Your task to perform on an android device: open app "Roku - Official Remote Control" (install if not already installed) Image 0: 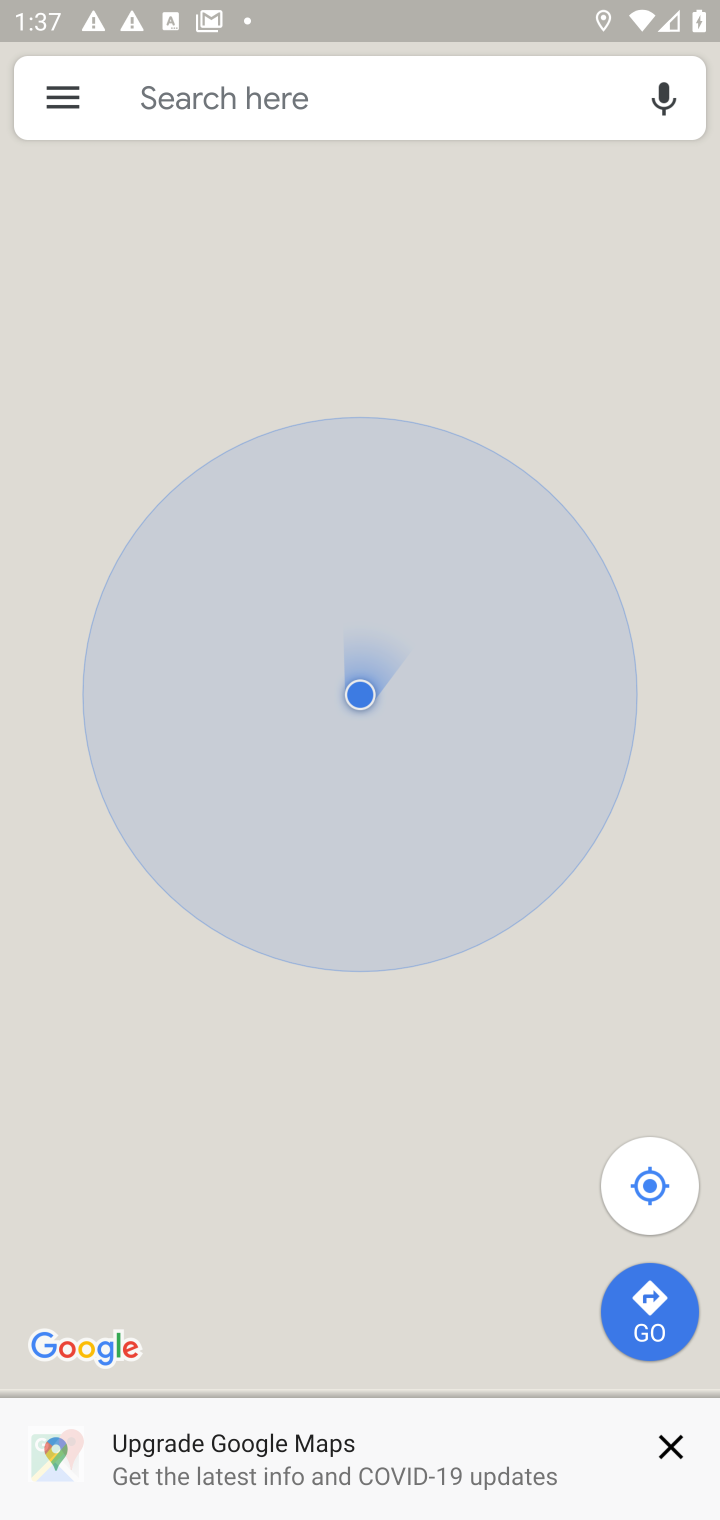
Step 0: press home button
Your task to perform on an android device: open app "Roku - Official Remote Control" (install if not already installed) Image 1: 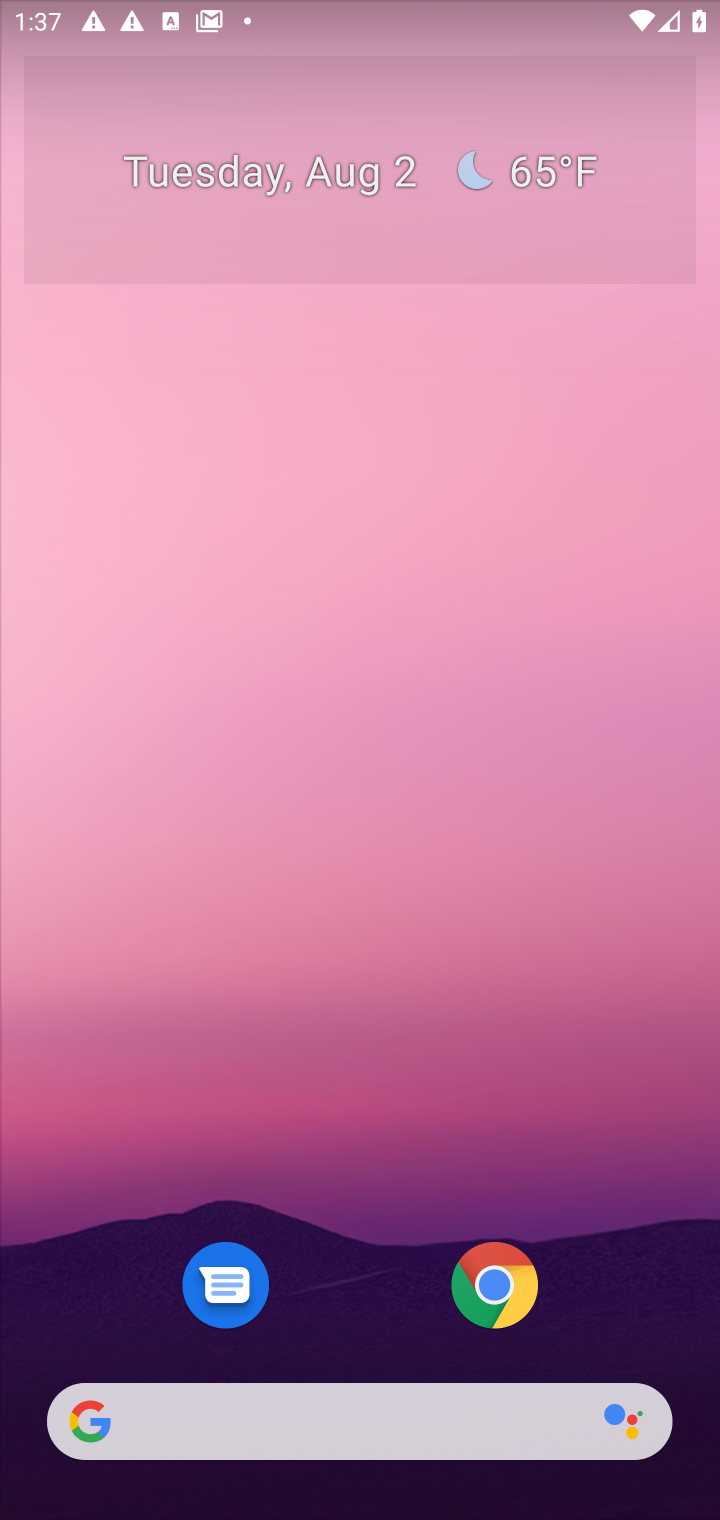
Step 1: drag from (550, 1114) to (643, 67)
Your task to perform on an android device: open app "Roku - Official Remote Control" (install if not already installed) Image 2: 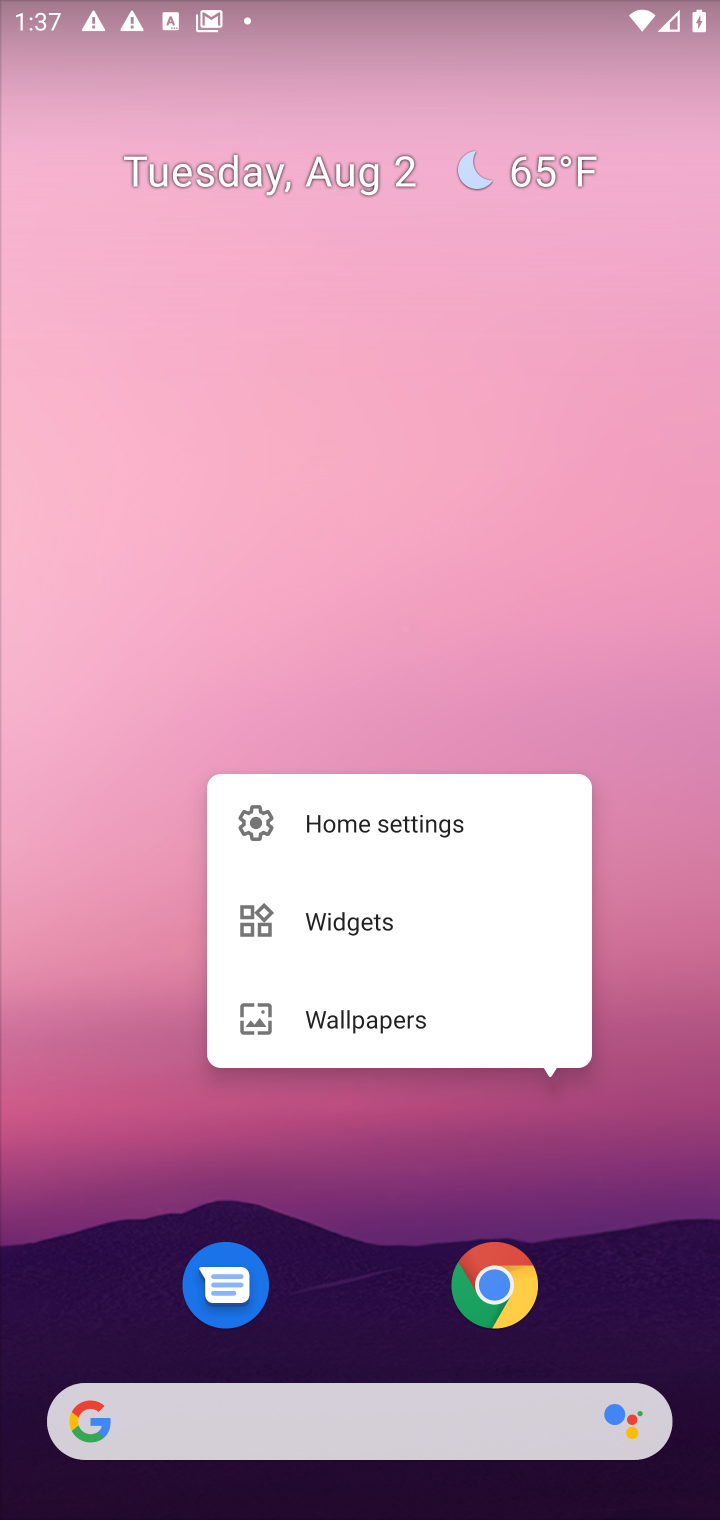
Step 2: click (565, 573)
Your task to perform on an android device: open app "Roku - Official Remote Control" (install if not already installed) Image 3: 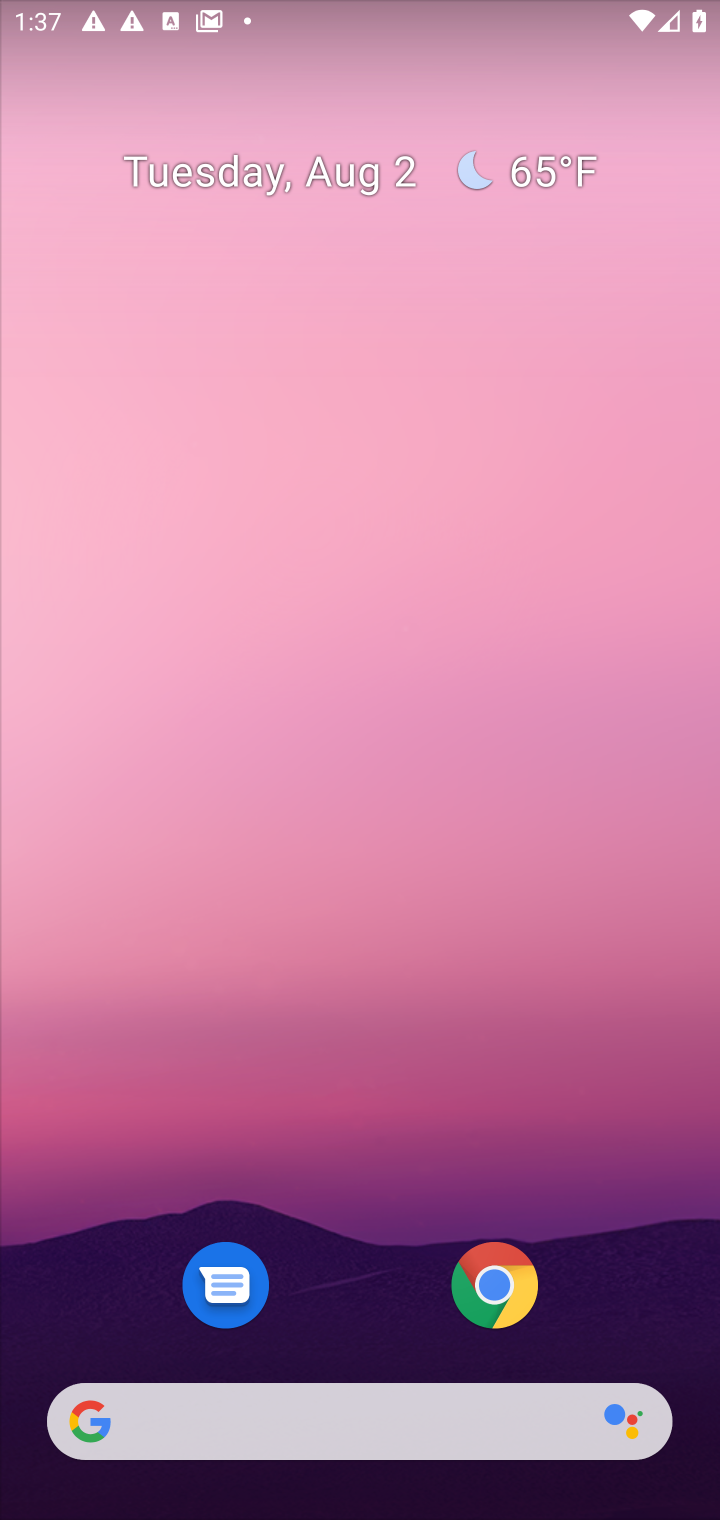
Step 3: drag from (648, 1222) to (665, 208)
Your task to perform on an android device: open app "Roku - Official Remote Control" (install if not already installed) Image 4: 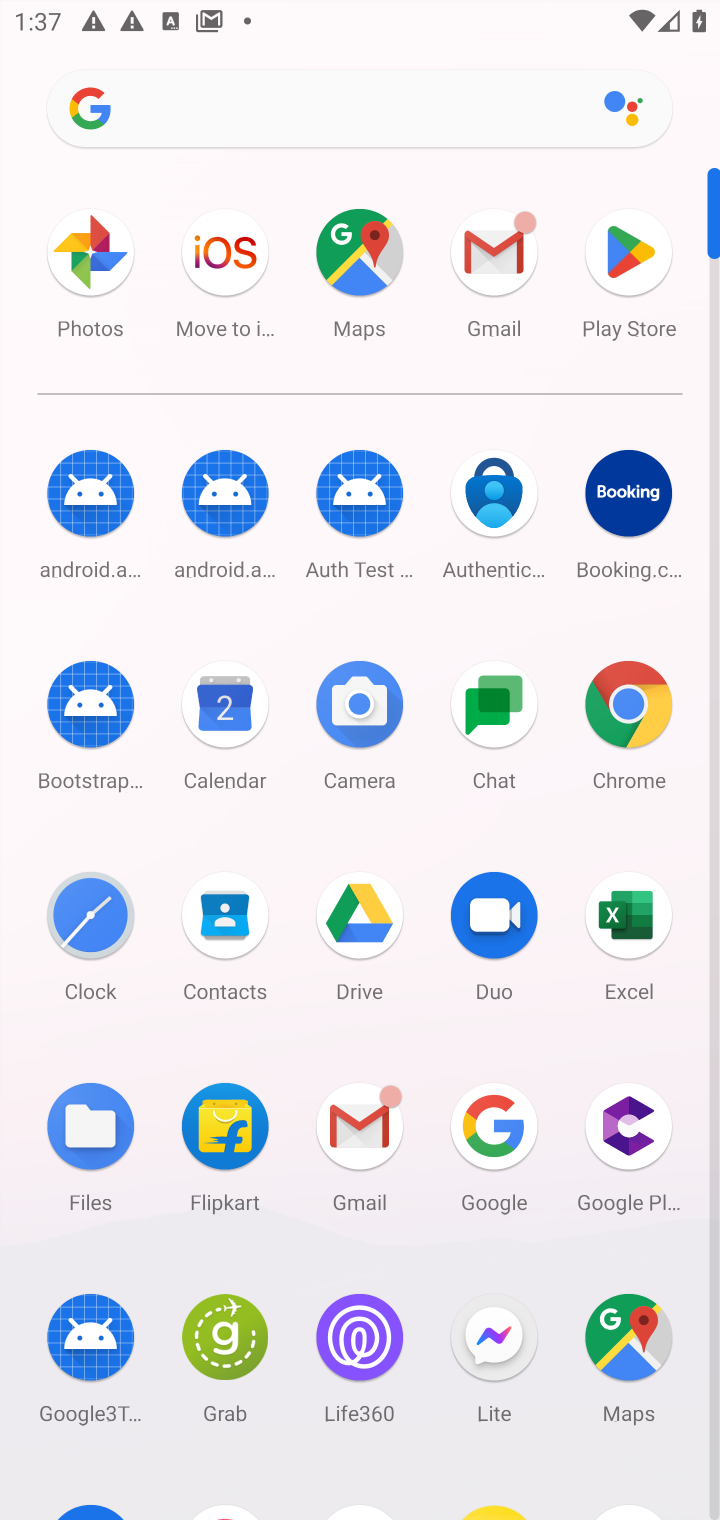
Step 4: drag from (536, 1196) to (580, 624)
Your task to perform on an android device: open app "Roku - Official Remote Control" (install if not already installed) Image 5: 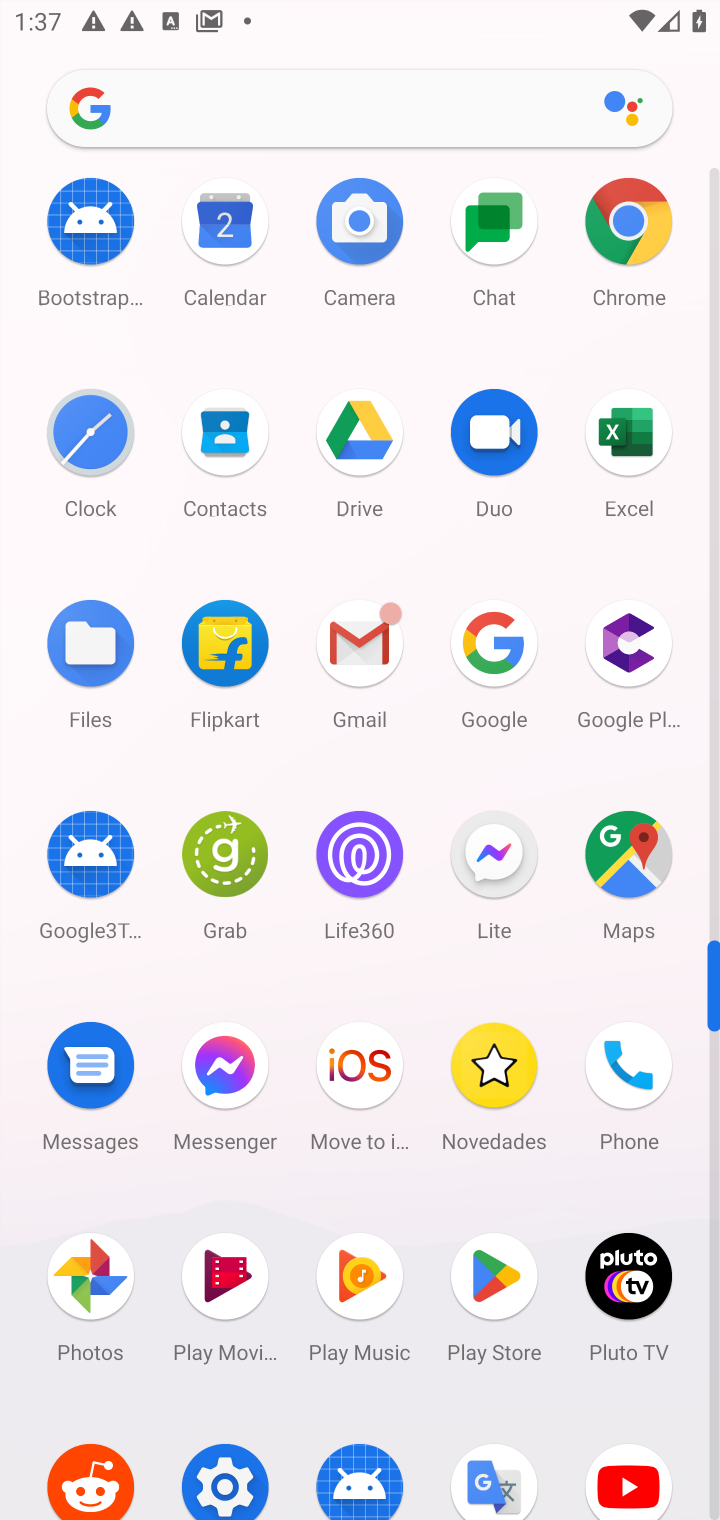
Step 5: click (510, 1272)
Your task to perform on an android device: open app "Roku - Official Remote Control" (install if not already installed) Image 6: 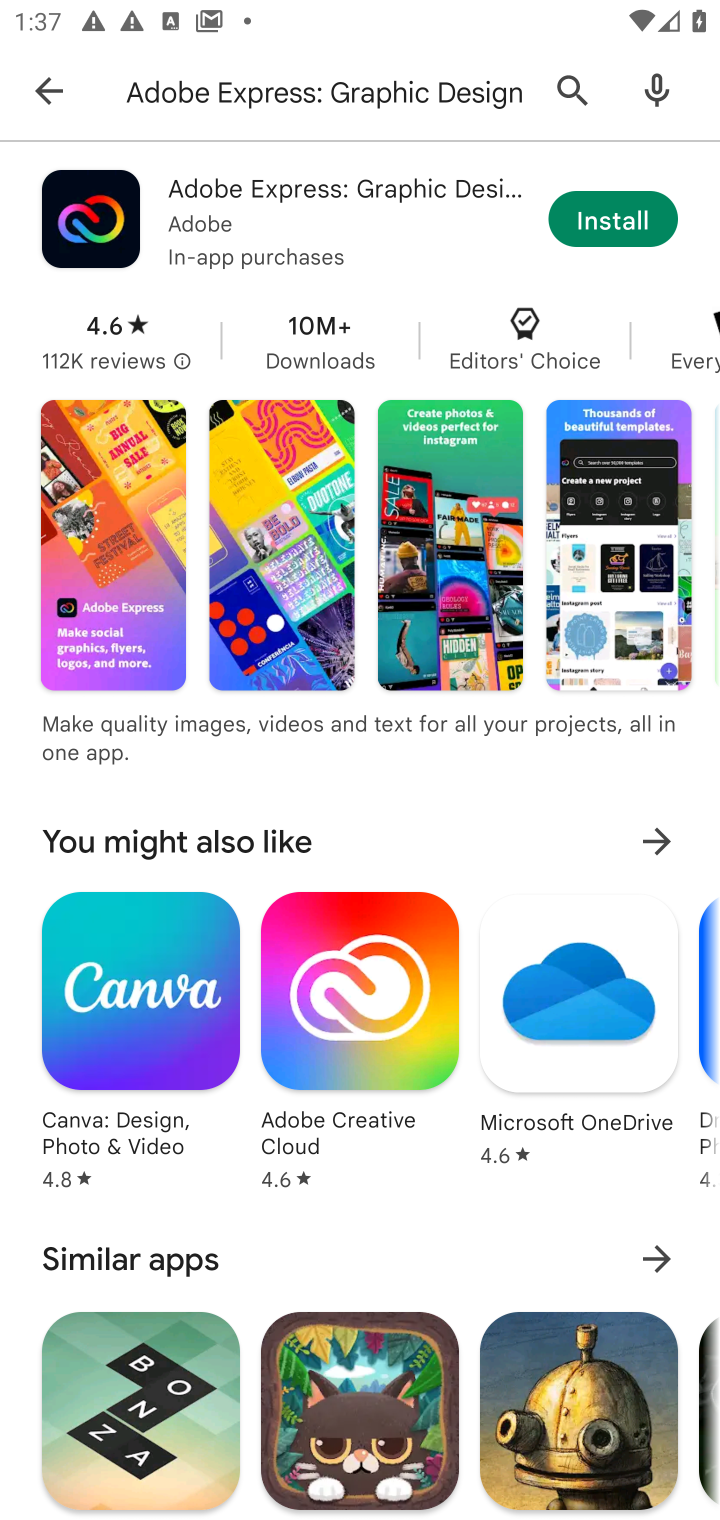
Step 6: click (442, 102)
Your task to perform on an android device: open app "Roku - Official Remote Control" (install if not already installed) Image 7: 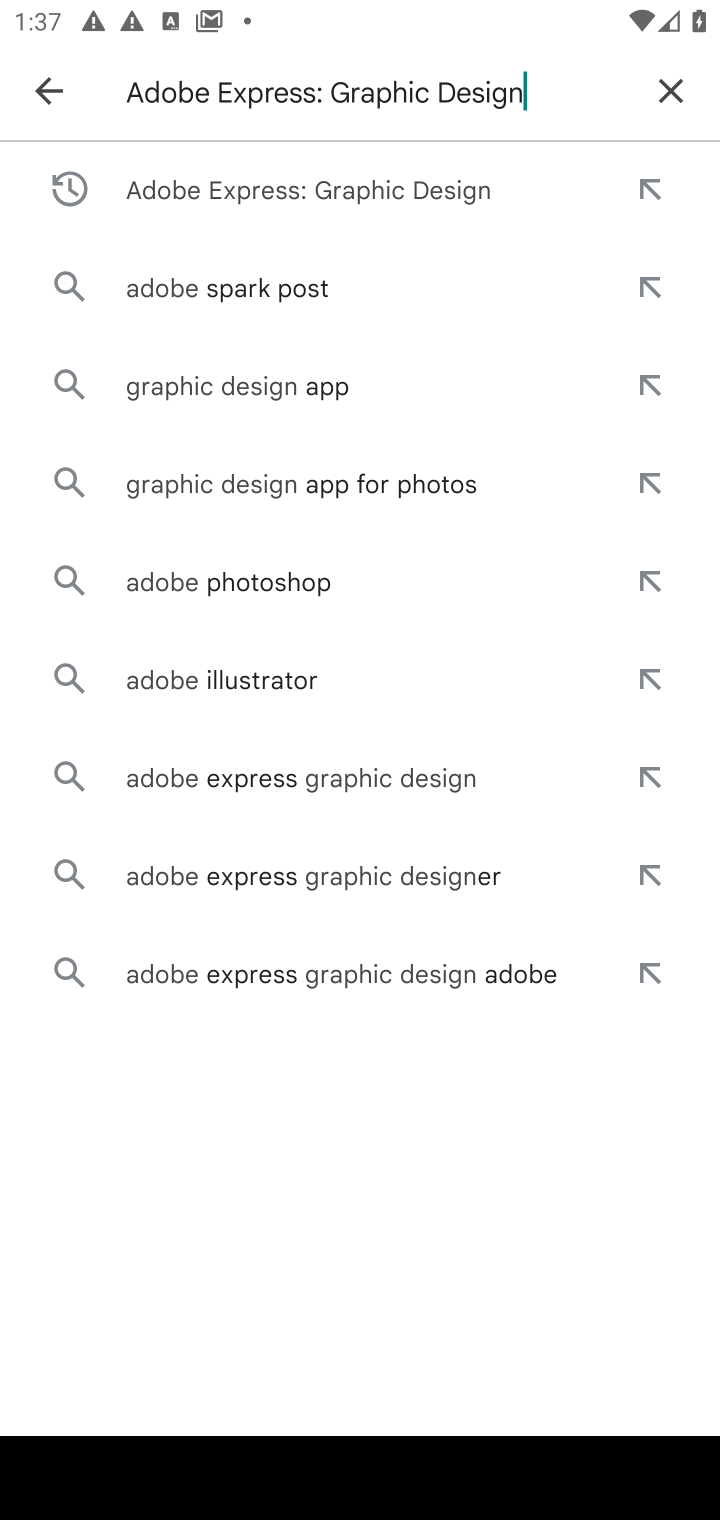
Step 7: click (681, 90)
Your task to perform on an android device: open app "Roku - Official Remote Control" (install if not already installed) Image 8: 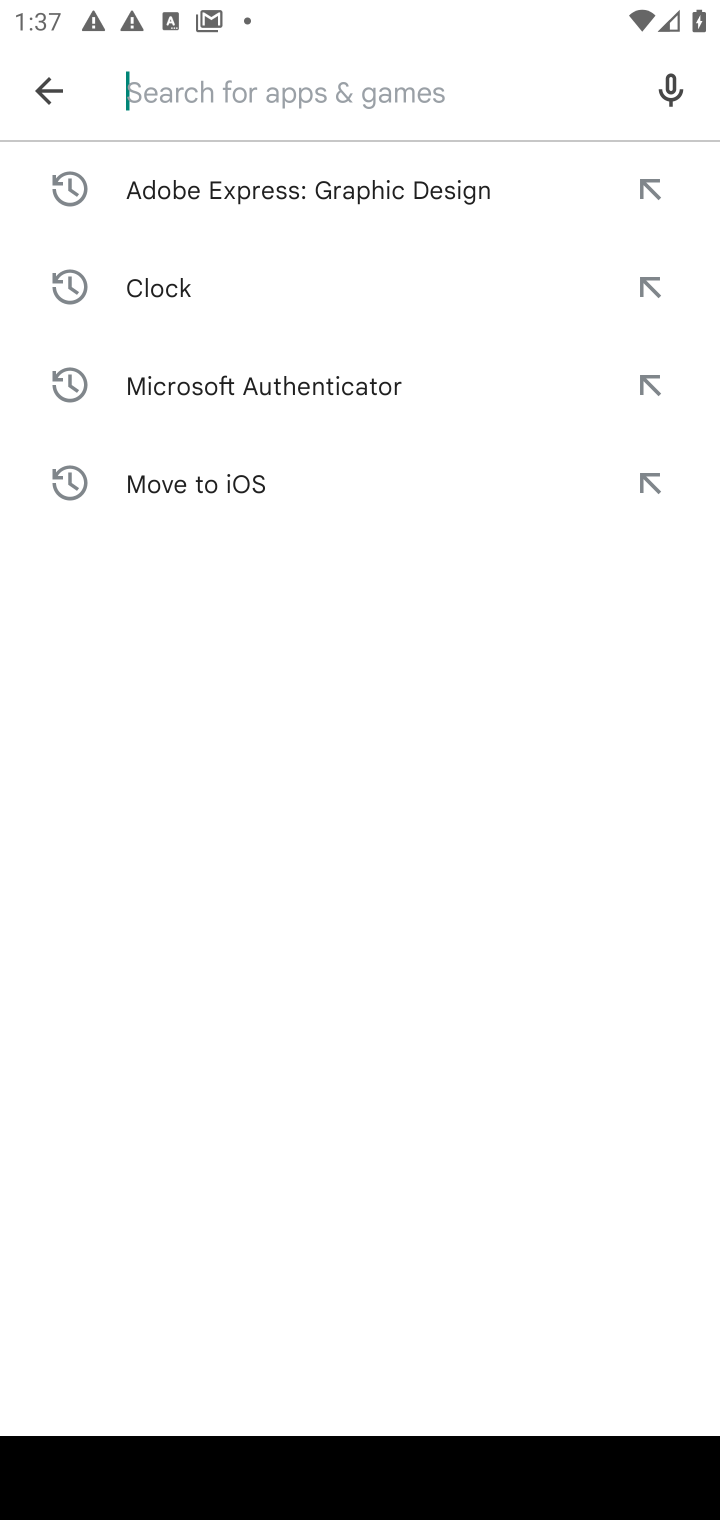
Step 8: type "Roku - Official Remote Control"
Your task to perform on an android device: open app "Roku - Official Remote Control" (install if not already installed) Image 9: 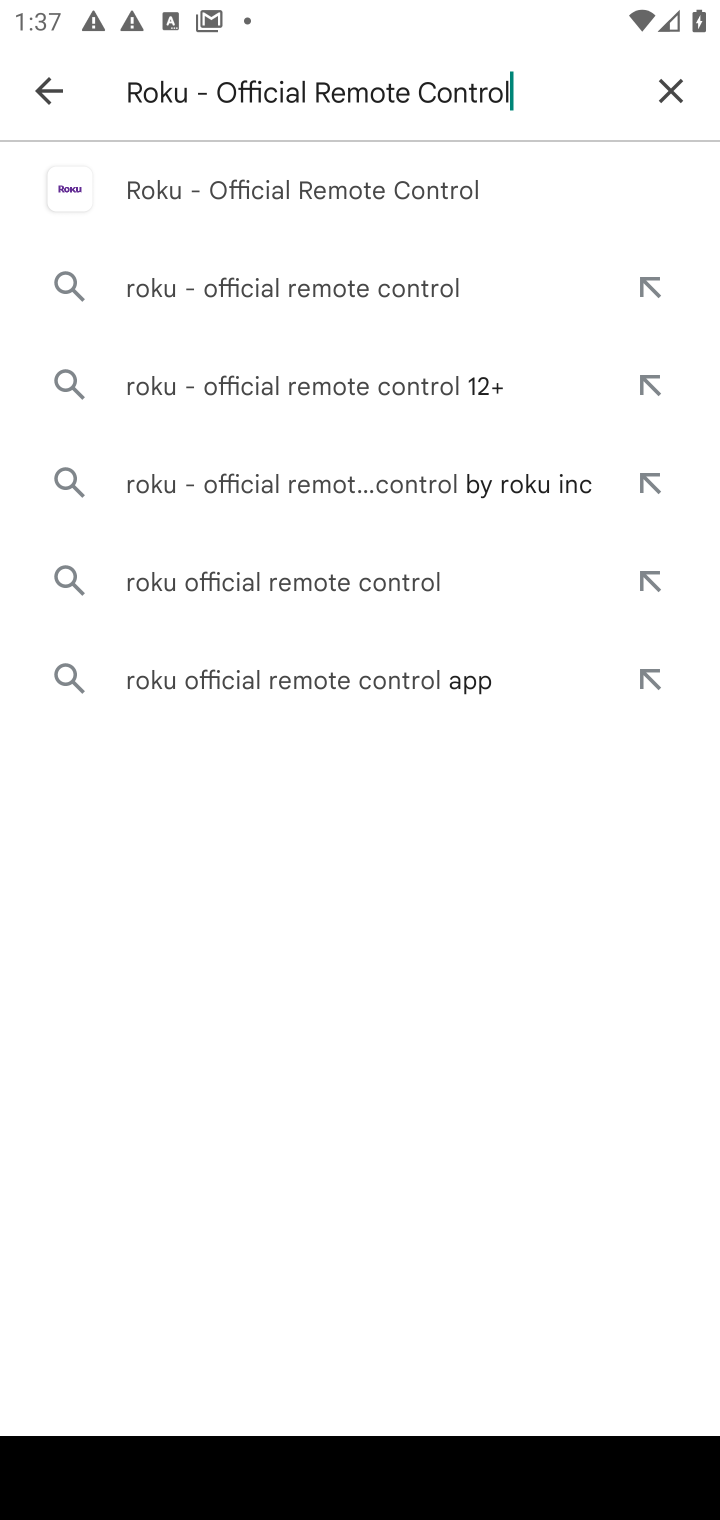
Step 9: press enter
Your task to perform on an android device: open app "Roku - Official Remote Control" (install if not already installed) Image 10: 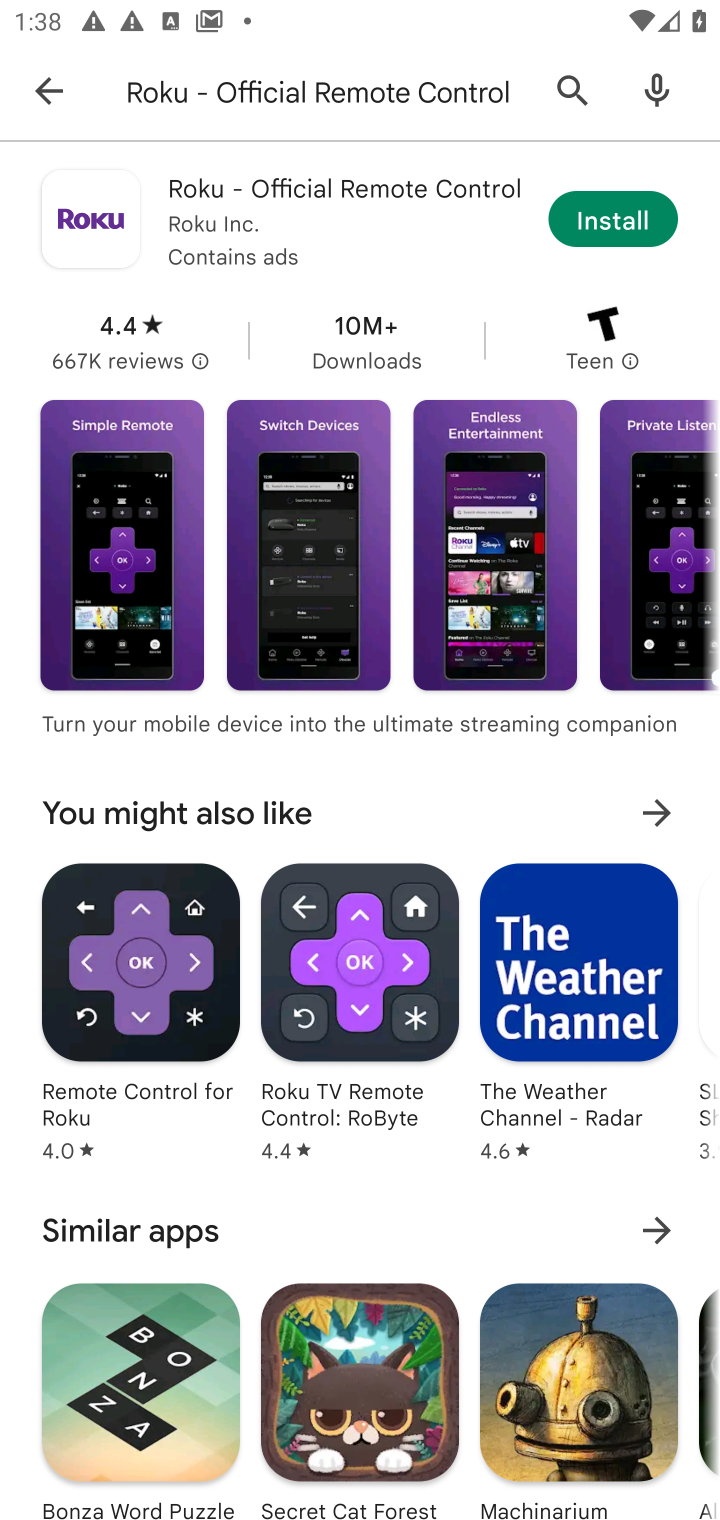
Step 10: click (634, 215)
Your task to perform on an android device: open app "Roku - Official Remote Control" (install if not already installed) Image 11: 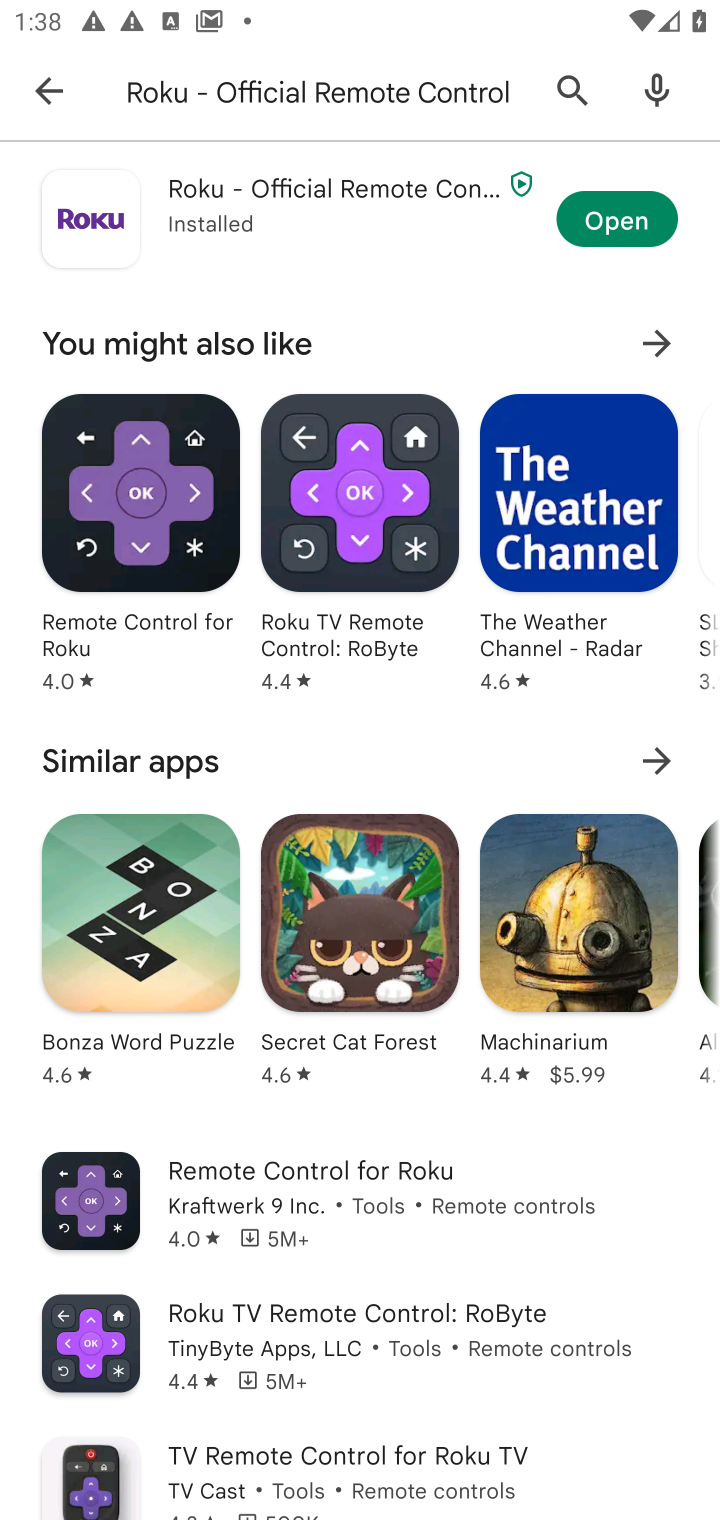
Step 11: click (627, 219)
Your task to perform on an android device: open app "Roku - Official Remote Control" (install if not already installed) Image 12: 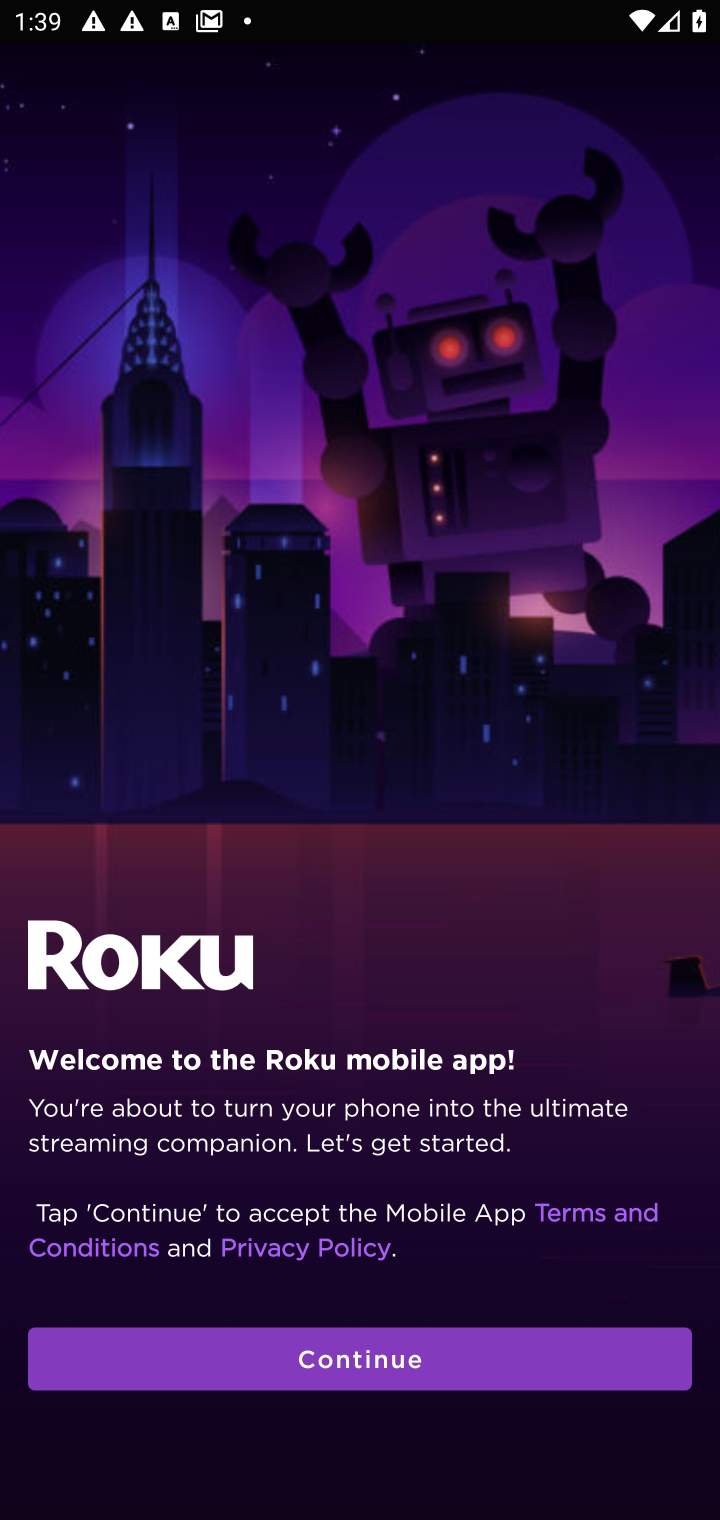
Step 12: task complete